Your task to perform on an android device: turn off smart reply in the gmail app Image 0: 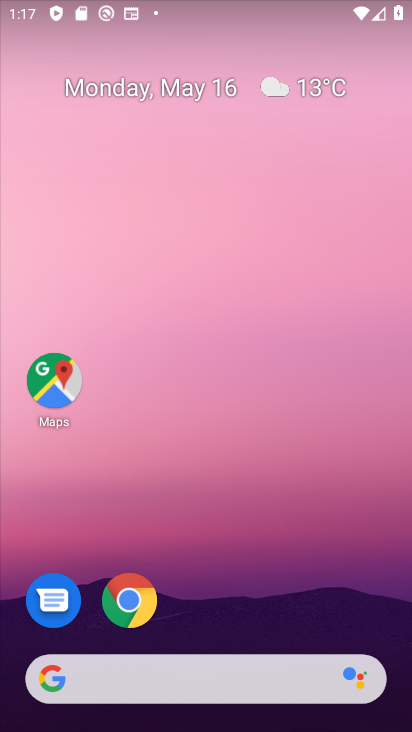
Step 0: drag from (234, 594) to (148, 321)
Your task to perform on an android device: turn off smart reply in the gmail app Image 1: 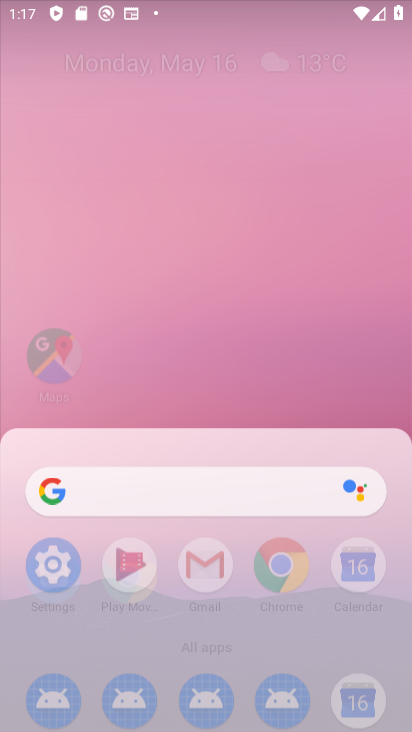
Step 1: drag from (75, 176) to (47, 97)
Your task to perform on an android device: turn off smart reply in the gmail app Image 2: 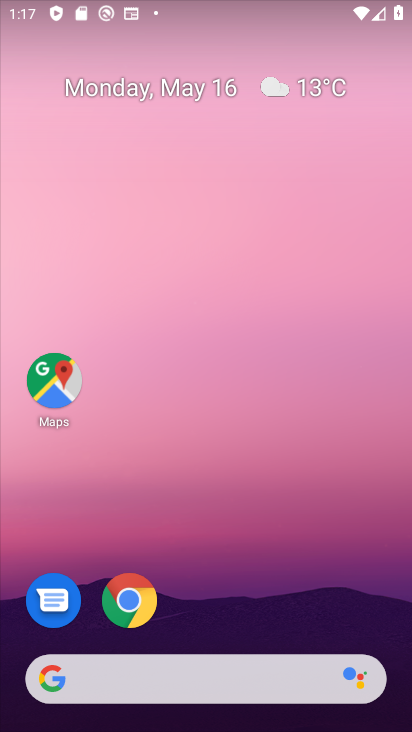
Step 2: drag from (217, 623) to (45, 25)
Your task to perform on an android device: turn off smart reply in the gmail app Image 3: 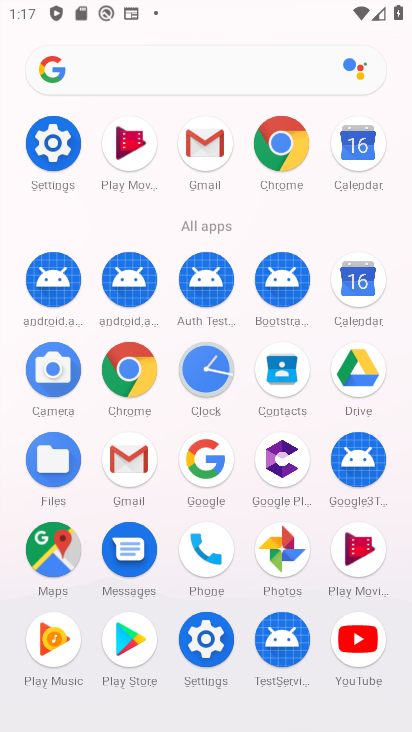
Step 3: click (117, 468)
Your task to perform on an android device: turn off smart reply in the gmail app Image 4: 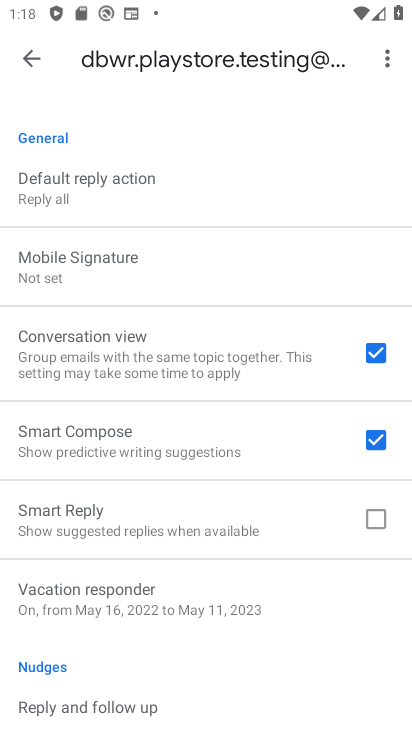
Step 4: task complete